Your task to perform on an android device: Add "logitech g pro" to the cart on costco, then select checkout. Image 0: 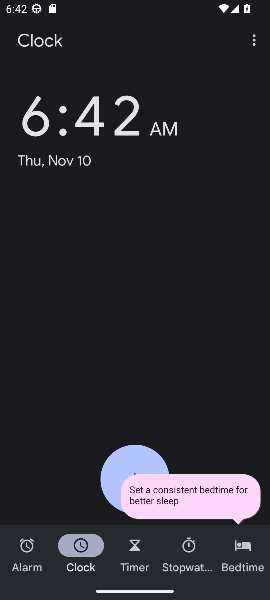
Step 0: press home button
Your task to perform on an android device: Add "logitech g pro" to the cart on costco, then select checkout. Image 1: 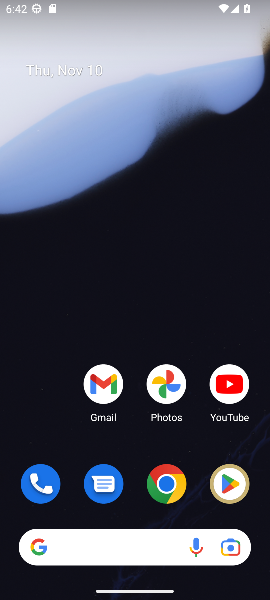
Step 1: click (171, 492)
Your task to perform on an android device: Add "logitech g pro" to the cart on costco, then select checkout. Image 2: 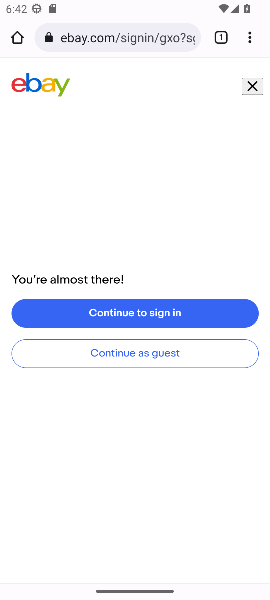
Step 2: click (117, 47)
Your task to perform on an android device: Add "logitech g pro" to the cart on costco, then select checkout. Image 3: 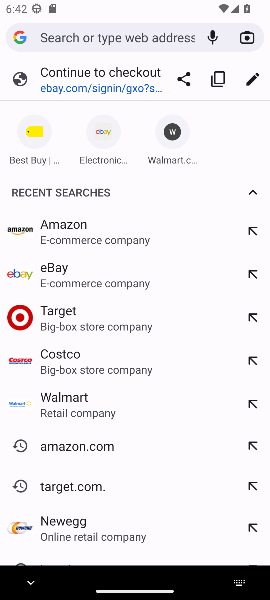
Step 3: type "costco.com"
Your task to perform on an android device: Add "logitech g pro" to the cart on costco, then select checkout. Image 4: 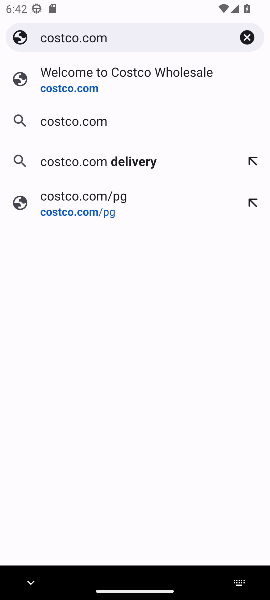
Step 4: click (67, 88)
Your task to perform on an android device: Add "logitech g pro" to the cart on costco, then select checkout. Image 5: 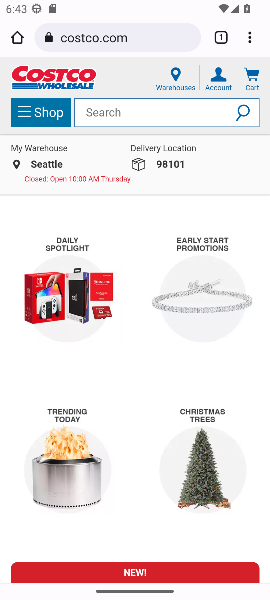
Step 5: click (115, 108)
Your task to perform on an android device: Add "logitech g pro" to the cart on costco, then select checkout. Image 6: 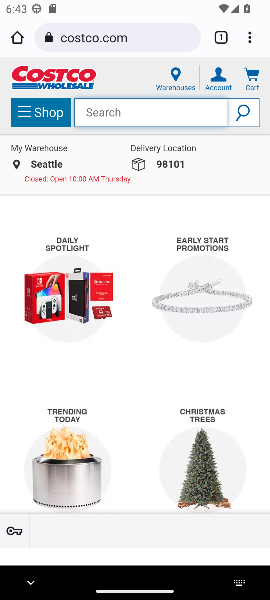
Step 6: type "logitech g pro"
Your task to perform on an android device: Add "logitech g pro" to the cart on costco, then select checkout. Image 7: 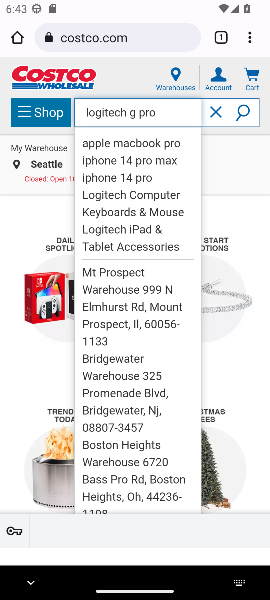
Step 7: click (241, 115)
Your task to perform on an android device: Add "logitech g pro" to the cart on costco, then select checkout. Image 8: 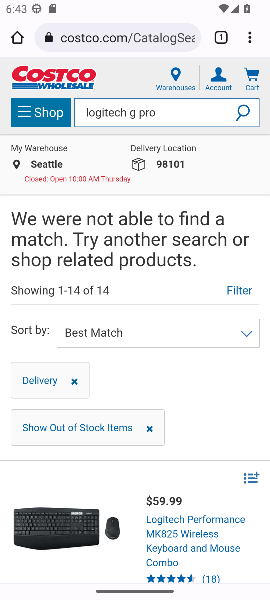
Step 8: task complete